Your task to perform on an android device: see tabs open on other devices in the chrome app Image 0: 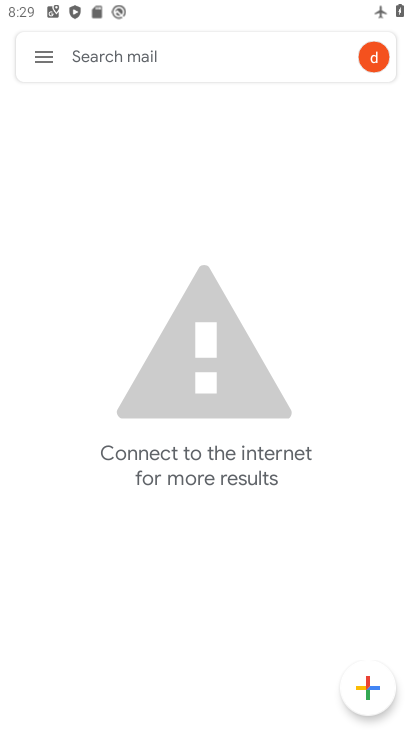
Step 0: press home button
Your task to perform on an android device: see tabs open on other devices in the chrome app Image 1: 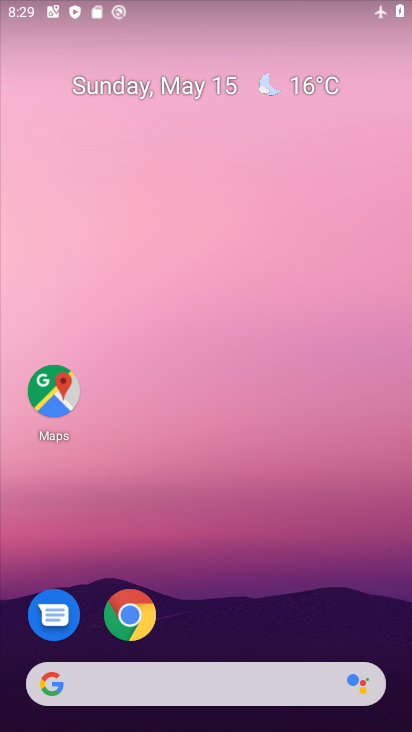
Step 1: click (138, 616)
Your task to perform on an android device: see tabs open on other devices in the chrome app Image 2: 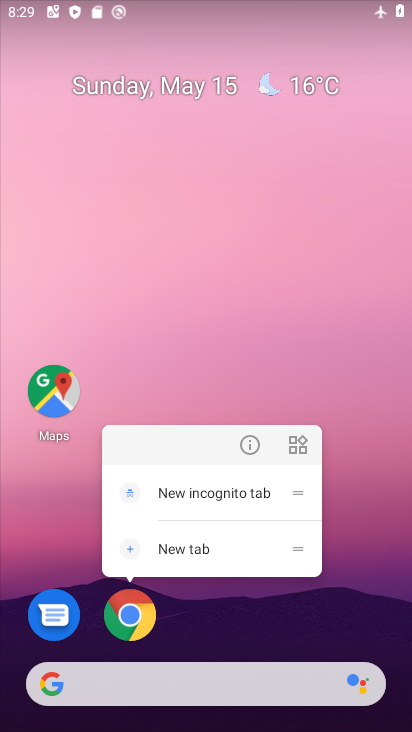
Step 2: click (143, 623)
Your task to perform on an android device: see tabs open on other devices in the chrome app Image 3: 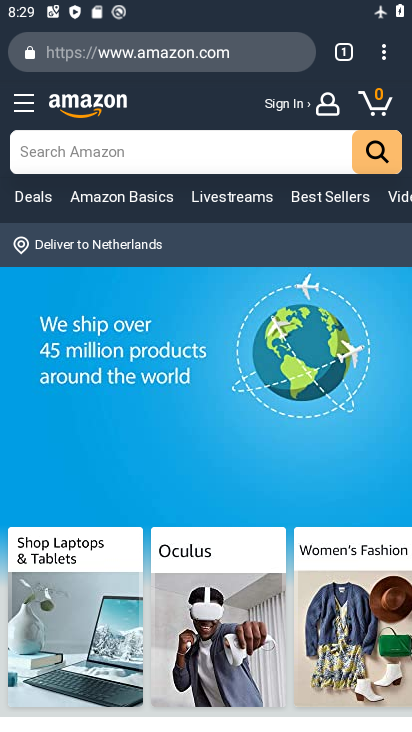
Step 3: click (384, 59)
Your task to perform on an android device: see tabs open on other devices in the chrome app Image 4: 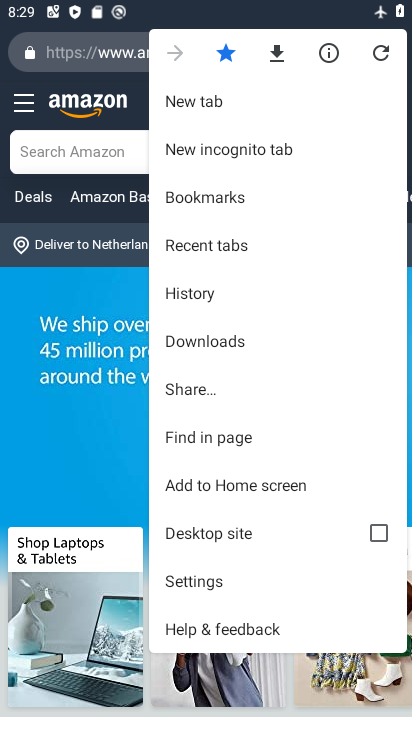
Step 4: click (214, 248)
Your task to perform on an android device: see tabs open on other devices in the chrome app Image 5: 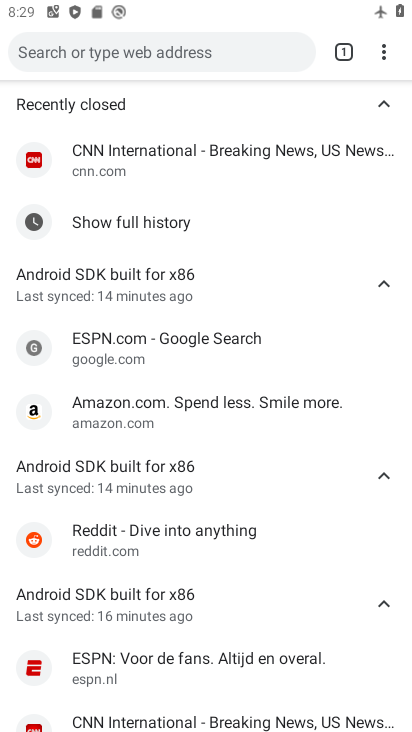
Step 5: task complete